Your task to perform on an android device: toggle data saver in the chrome app Image 0: 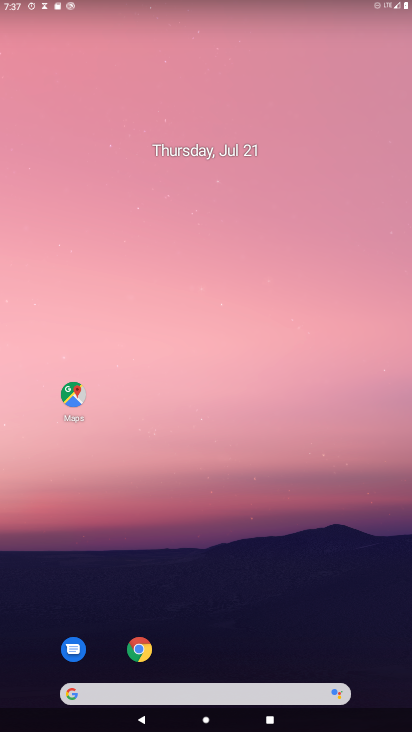
Step 0: drag from (360, 611) to (202, 81)
Your task to perform on an android device: toggle data saver in the chrome app Image 1: 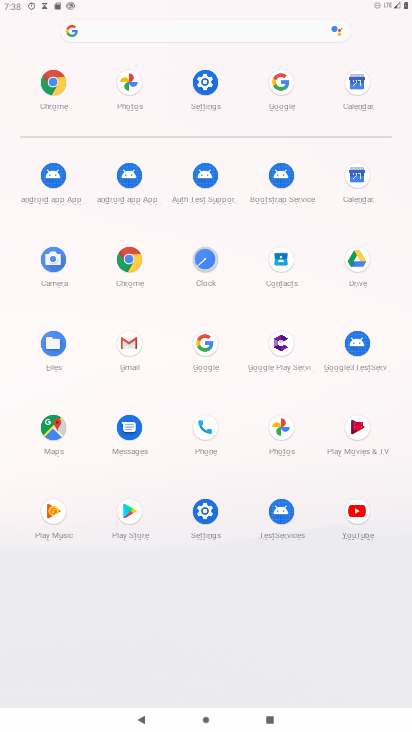
Step 1: click (128, 272)
Your task to perform on an android device: toggle data saver in the chrome app Image 2: 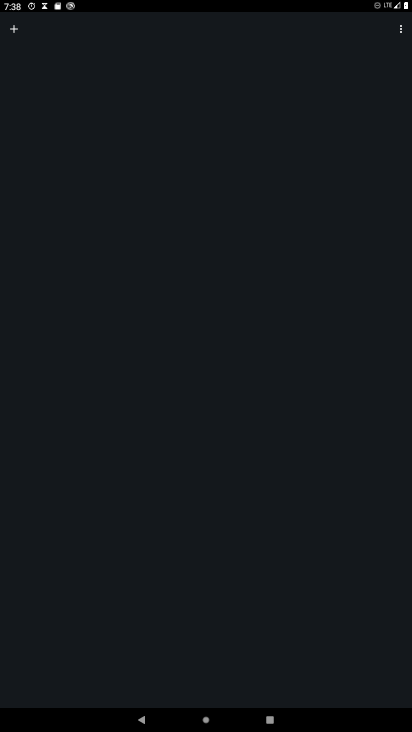
Step 2: click (403, 27)
Your task to perform on an android device: toggle data saver in the chrome app Image 3: 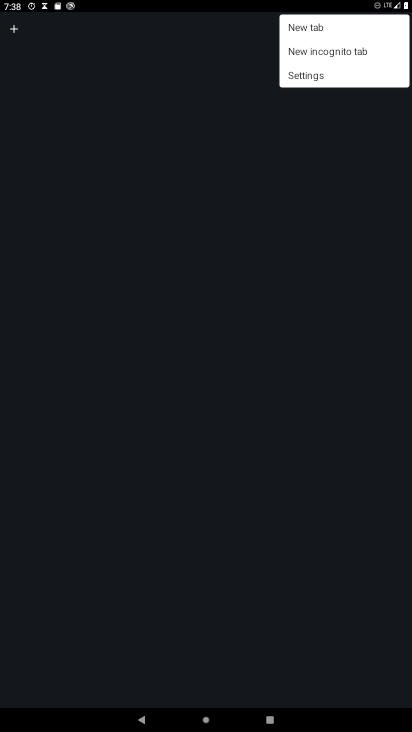
Step 3: click (311, 80)
Your task to perform on an android device: toggle data saver in the chrome app Image 4: 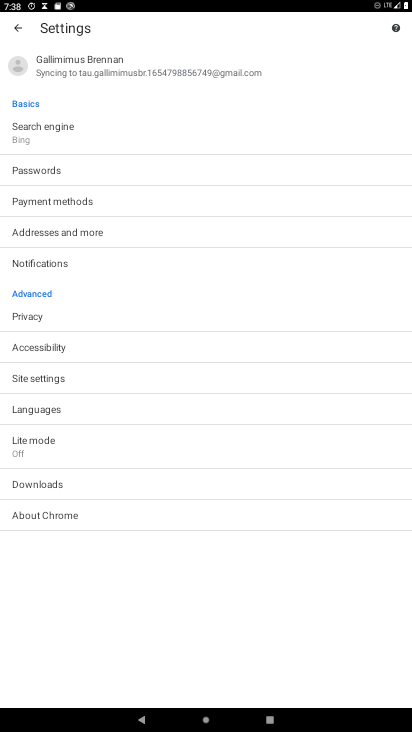
Step 4: click (35, 447)
Your task to perform on an android device: toggle data saver in the chrome app Image 5: 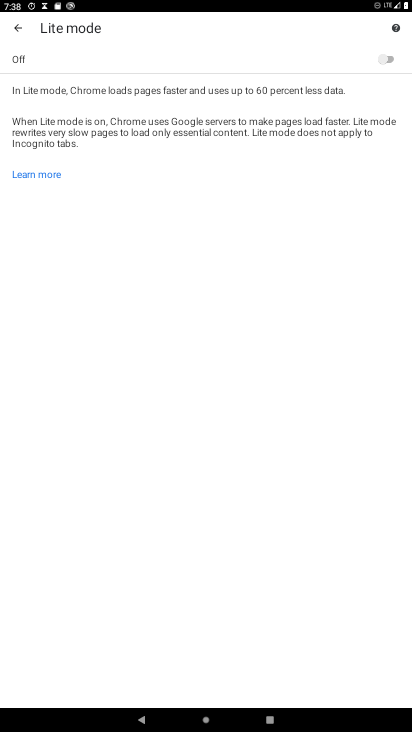
Step 5: click (404, 53)
Your task to perform on an android device: toggle data saver in the chrome app Image 6: 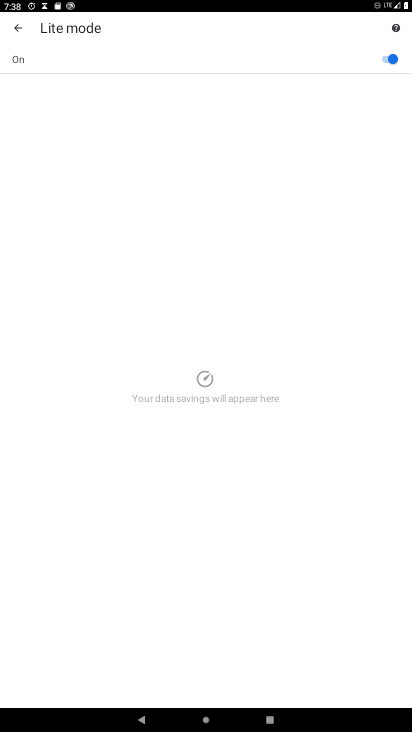
Step 6: task complete